Your task to perform on an android device: Open Google Maps Image 0: 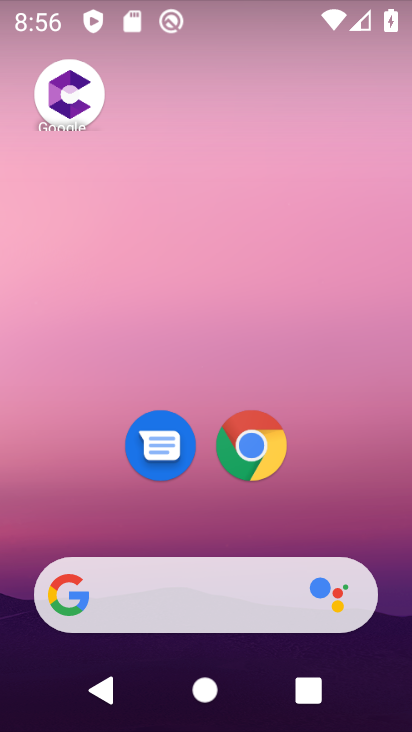
Step 0: drag from (194, 518) to (193, 1)
Your task to perform on an android device: Open Google Maps Image 1: 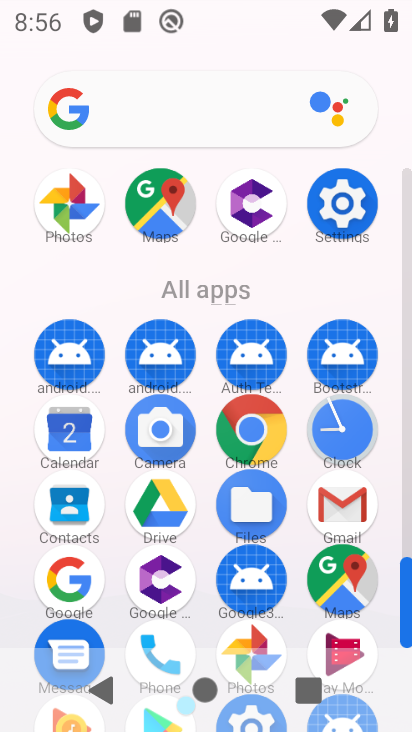
Step 1: click (140, 203)
Your task to perform on an android device: Open Google Maps Image 2: 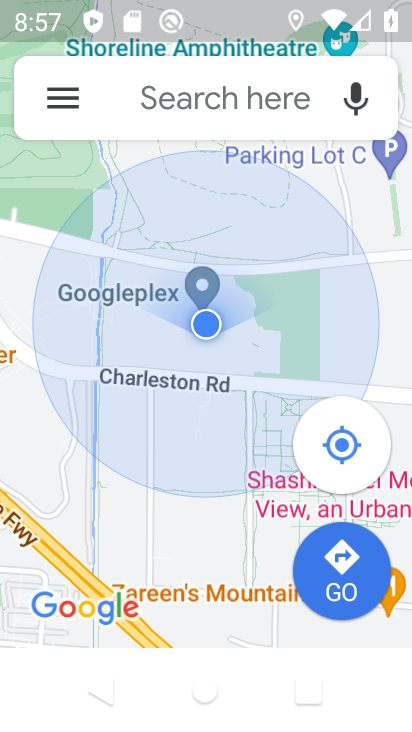
Step 2: task complete